Your task to perform on an android device: Search for pizza restaurants on Maps Image 0: 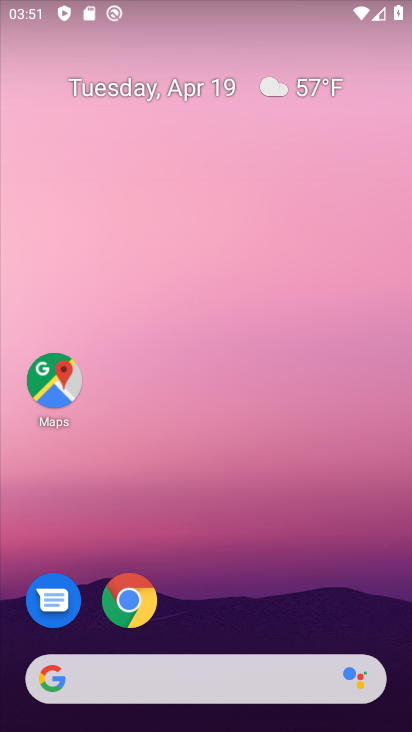
Step 0: click (60, 380)
Your task to perform on an android device: Search for pizza restaurants on Maps Image 1: 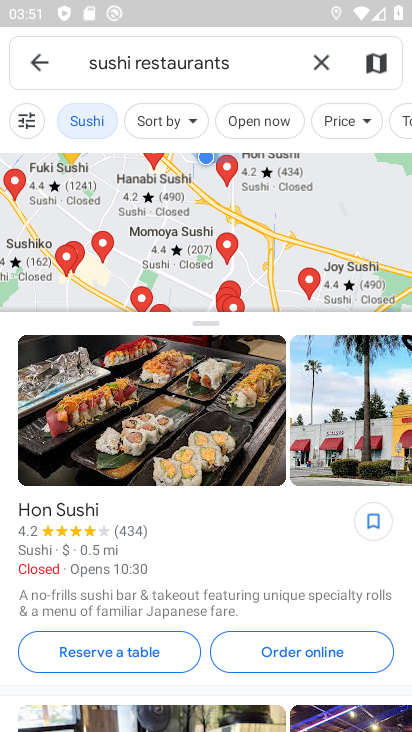
Step 1: click (318, 70)
Your task to perform on an android device: Search for pizza restaurants on Maps Image 2: 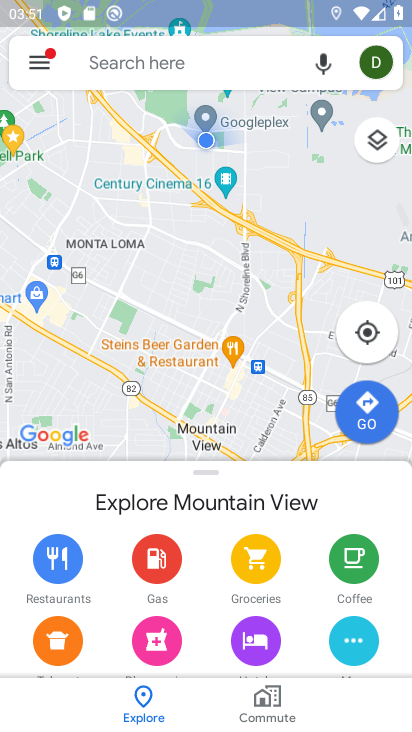
Step 2: click (198, 76)
Your task to perform on an android device: Search for pizza restaurants on Maps Image 3: 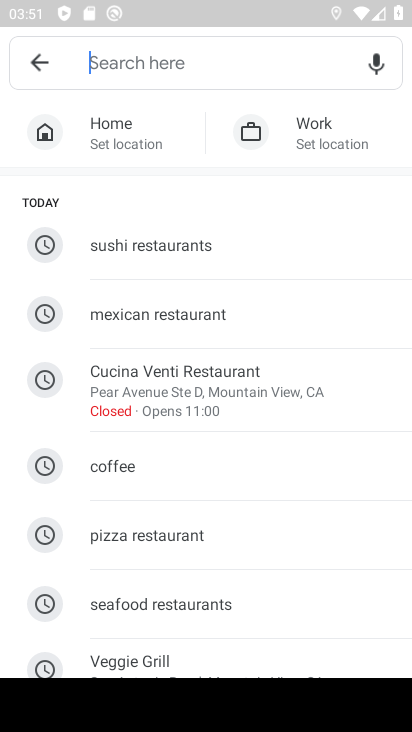
Step 3: type "pizza restaurants"
Your task to perform on an android device: Search for pizza restaurants on Maps Image 4: 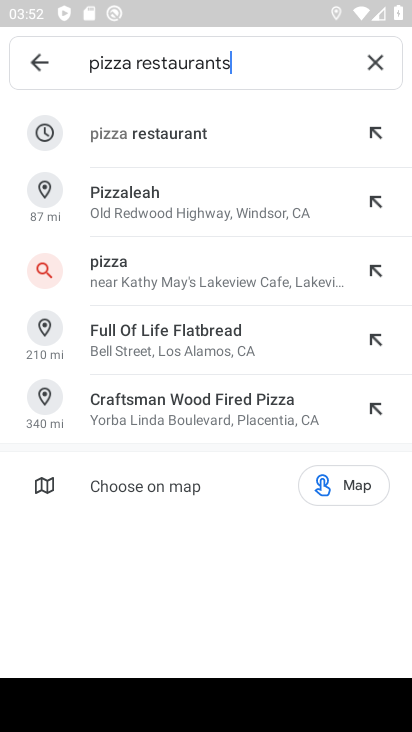
Step 4: click (275, 131)
Your task to perform on an android device: Search for pizza restaurants on Maps Image 5: 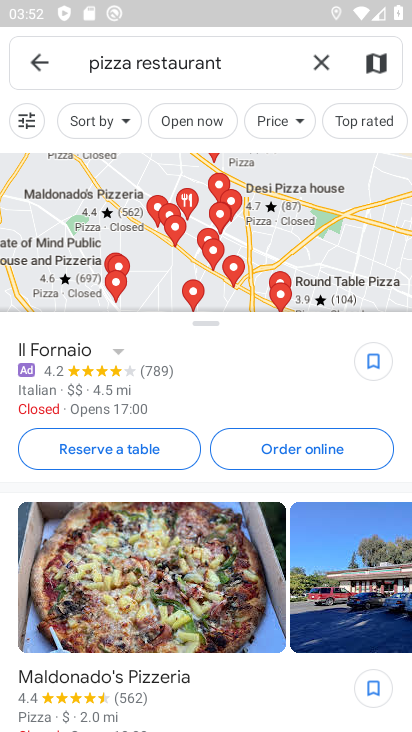
Step 5: task complete